Your task to perform on an android device: turn on the 12-hour format for clock Image 0: 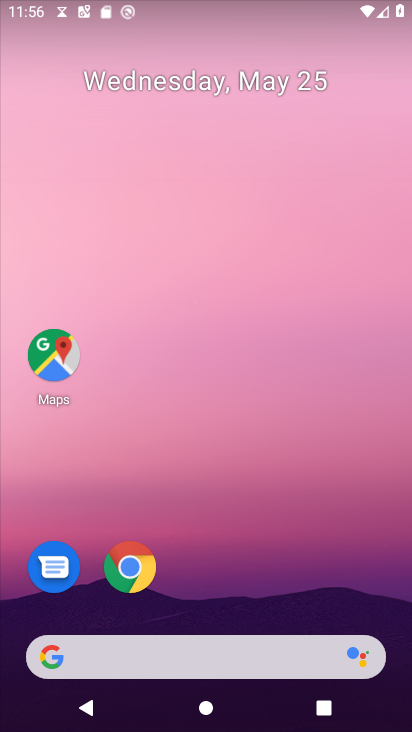
Step 0: drag from (210, 477) to (201, 0)
Your task to perform on an android device: turn on the 12-hour format for clock Image 1: 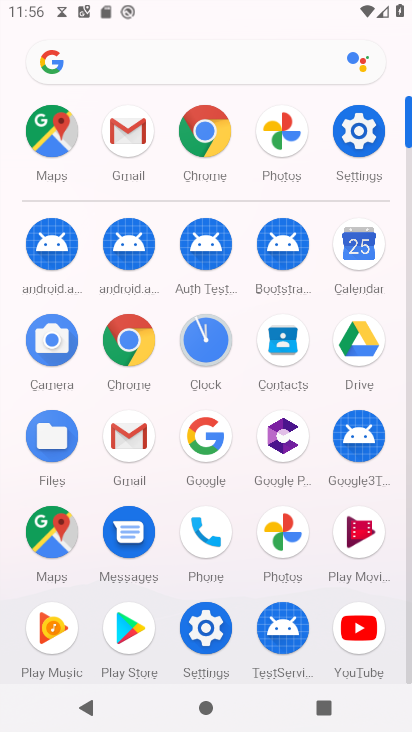
Step 1: click (199, 338)
Your task to perform on an android device: turn on the 12-hour format for clock Image 2: 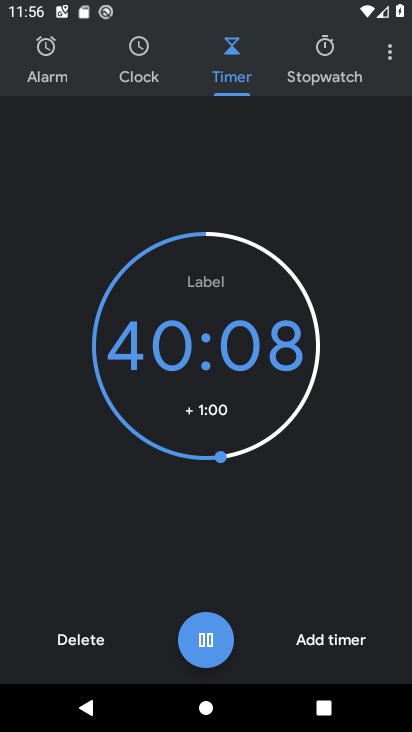
Step 2: click (375, 68)
Your task to perform on an android device: turn on the 12-hour format for clock Image 3: 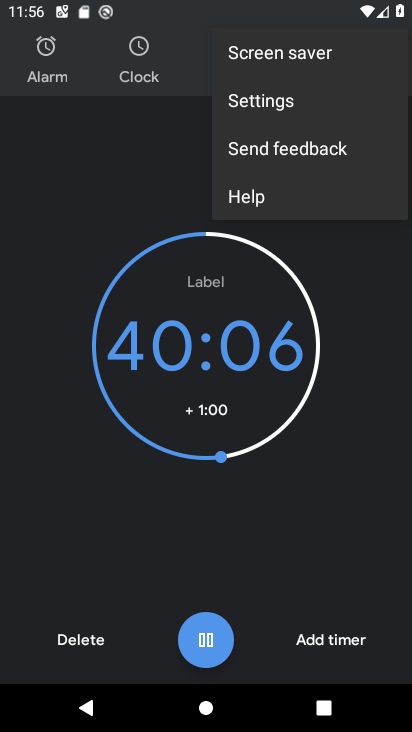
Step 3: click (329, 110)
Your task to perform on an android device: turn on the 12-hour format for clock Image 4: 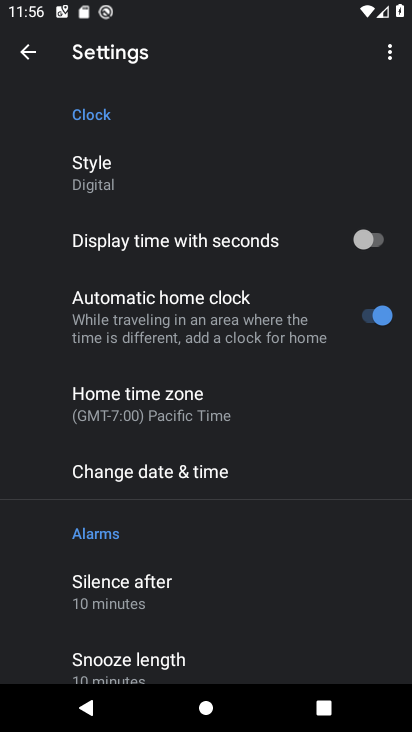
Step 4: click (176, 457)
Your task to perform on an android device: turn on the 12-hour format for clock Image 5: 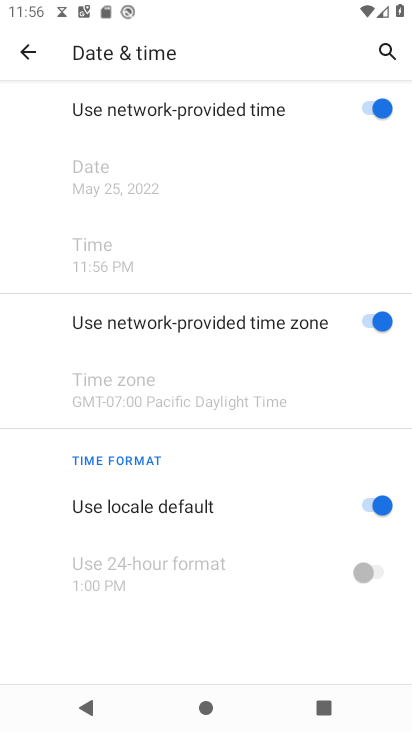
Step 5: task complete